Your task to perform on an android device: Go to ESPN.com Image 0: 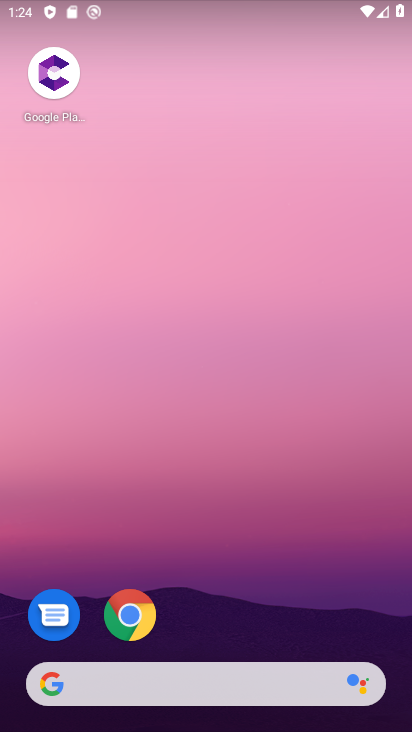
Step 0: click (142, 690)
Your task to perform on an android device: Go to ESPN.com Image 1: 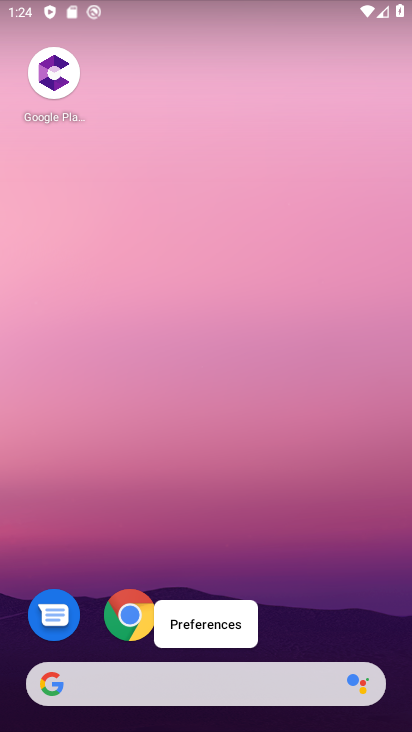
Step 1: click (147, 673)
Your task to perform on an android device: Go to ESPN.com Image 2: 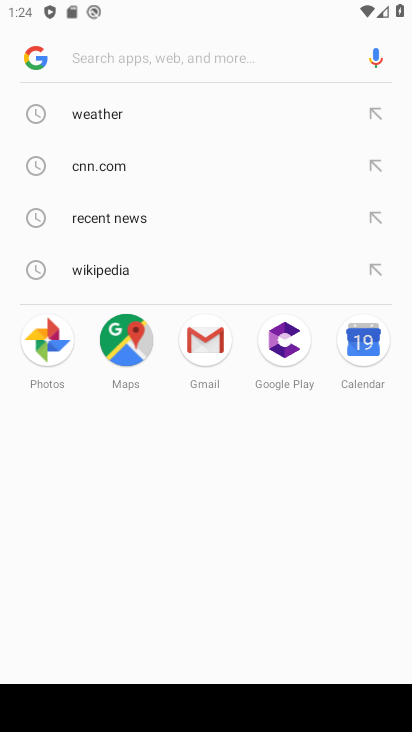
Step 2: click (166, 62)
Your task to perform on an android device: Go to ESPN.com Image 3: 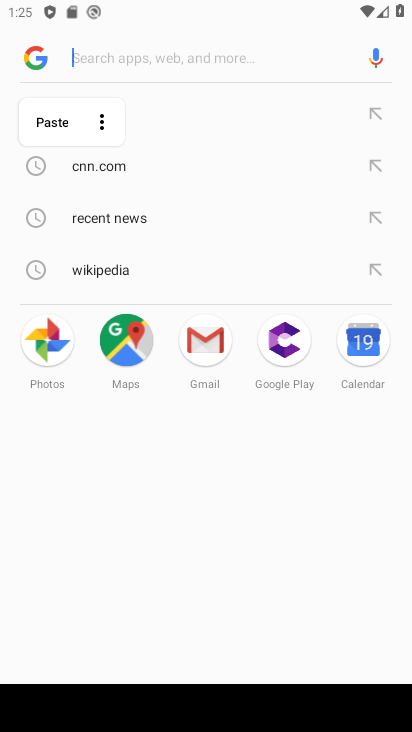
Step 3: type "ESPN.com"
Your task to perform on an android device: Go to ESPN.com Image 4: 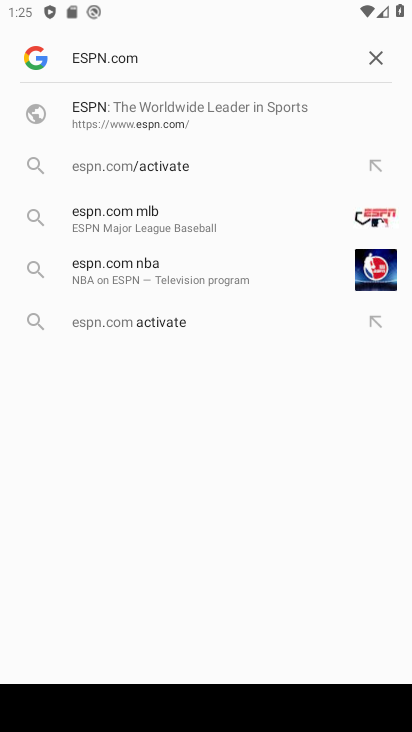
Step 4: click (121, 120)
Your task to perform on an android device: Go to ESPN.com Image 5: 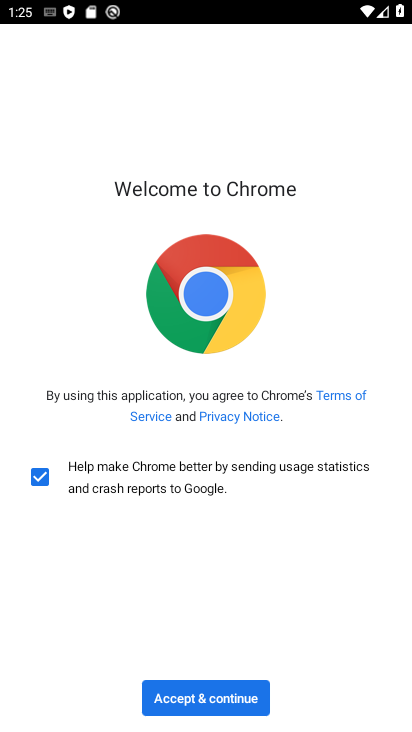
Step 5: click (243, 695)
Your task to perform on an android device: Go to ESPN.com Image 6: 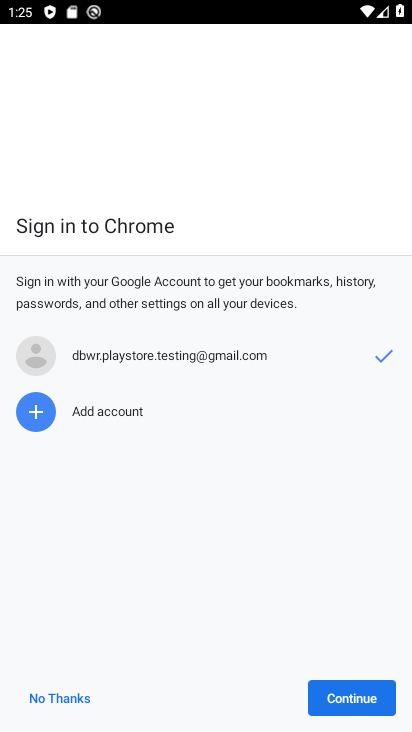
Step 6: click (364, 695)
Your task to perform on an android device: Go to ESPN.com Image 7: 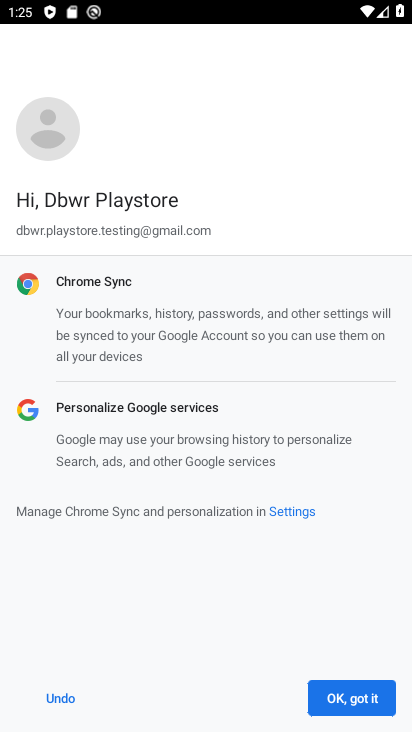
Step 7: click (358, 700)
Your task to perform on an android device: Go to ESPN.com Image 8: 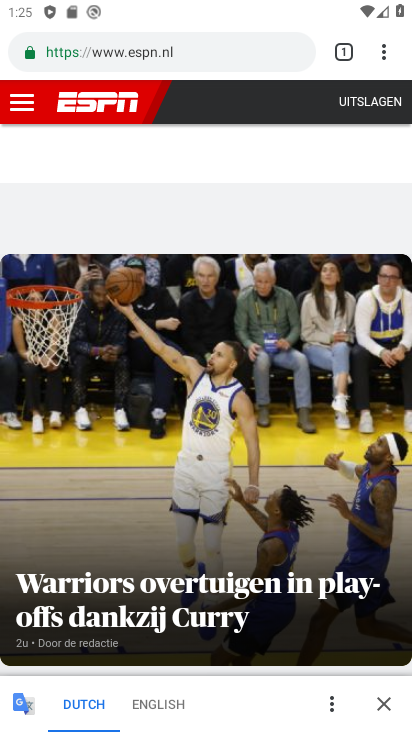
Step 8: task complete